Your task to perform on an android device: Toggle the flashlight Image 0: 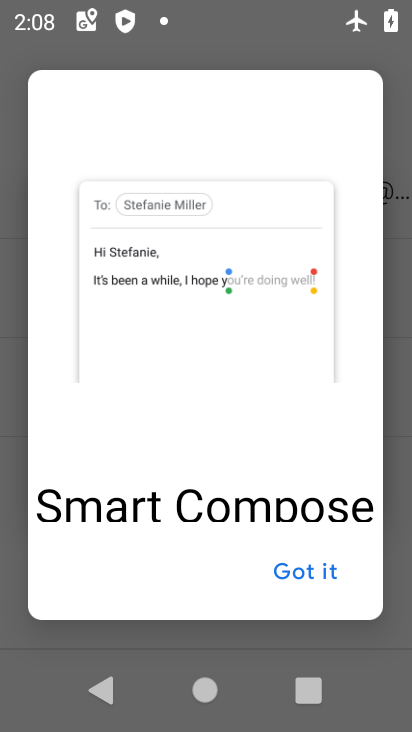
Step 0: press home button
Your task to perform on an android device: Toggle the flashlight Image 1: 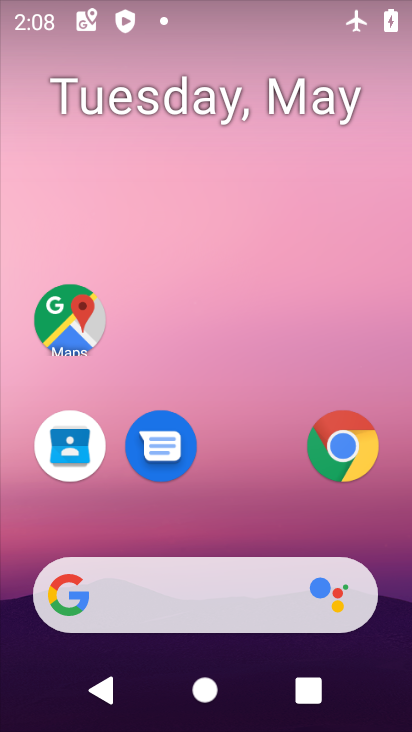
Step 1: drag from (191, 545) to (106, 71)
Your task to perform on an android device: Toggle the flashlight Image 2: 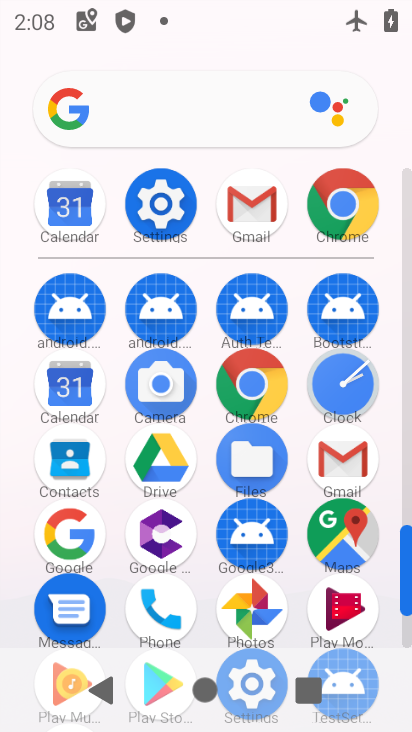
Step 2: click (163, 213)
Your task to perform on an android device: Toggle the flashlight Image 3: 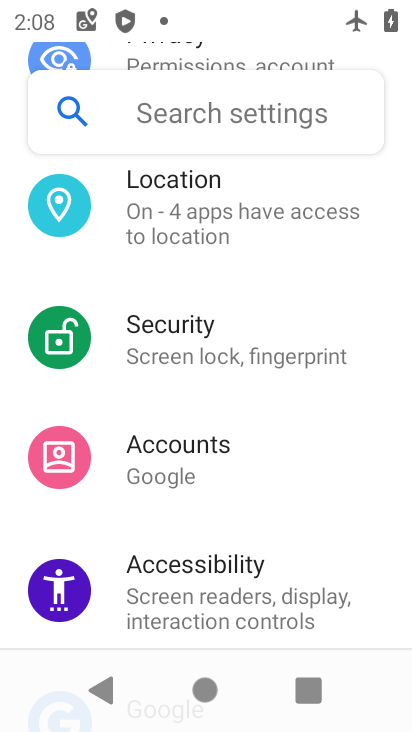
Step 3: task complete